Your task to perform on an android device: Open the Google play store app Image 0: 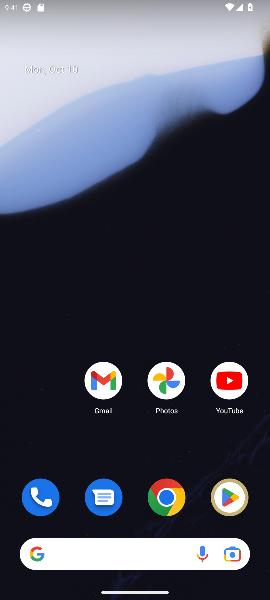
Step 0: drag from (109, 499) to (83, 67)
Your task to perform on an android device: Open the Google play store app Image 1: 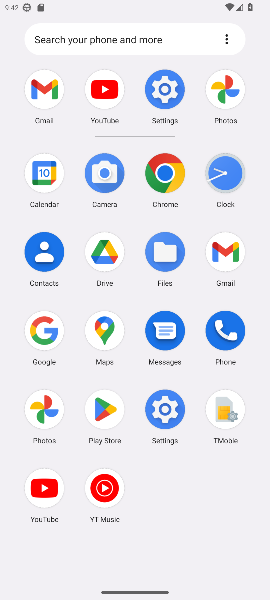
Step 1: click (97, 412)
Your task to perform on an android device: Open the Google play store app Image 2: 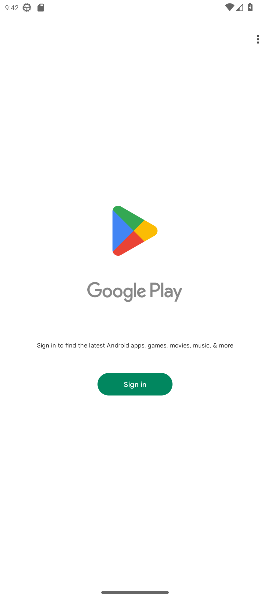
Step 2: task complete